Your task to perform on an android device: empty trash in google photos Image 0: 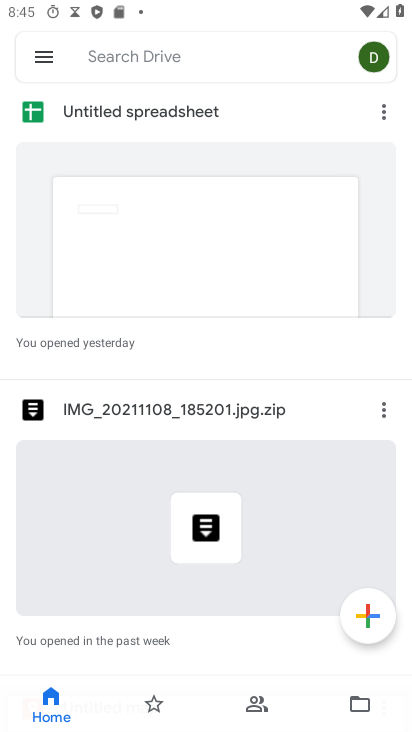
Step 0: press home button
Your task to perform on an android device: empty trash in google photos Image 1: 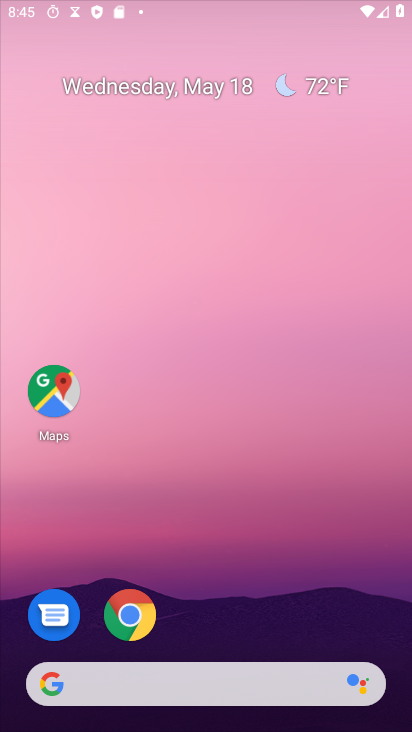
Step 1: drag from (294, 446) to (319, 74)
Your task to perform on an android device: empty trash in google photos Image 2: 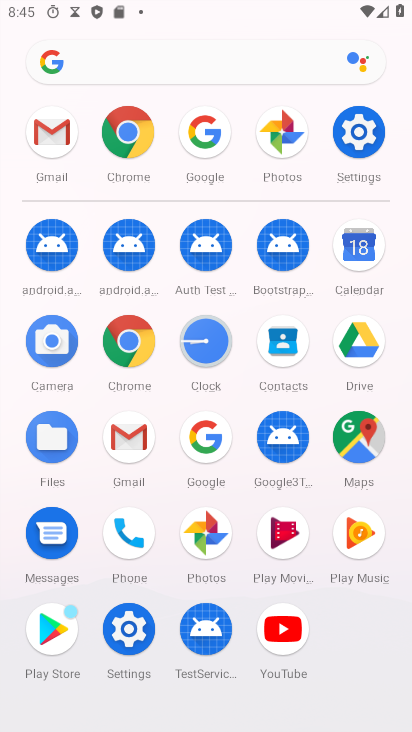
Step 2: click (201, 539)
Your task to perform on an android device: empty trash in google photos Image 3: 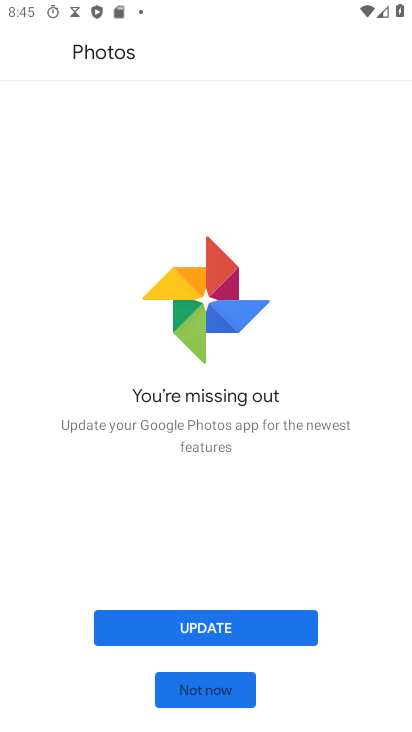
Step 3: click (252, 624)
Your task to perform on an android device: empty trash in google photos Image 4: 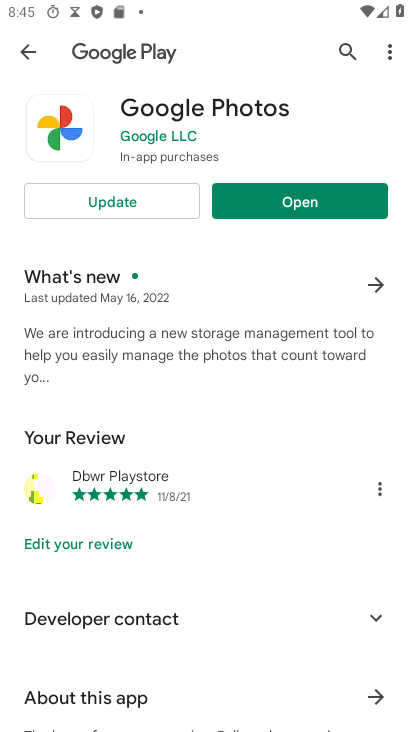
Step 4: click (157, 201)
Your task to perform on an android device: empty trash in google photos Image 5: 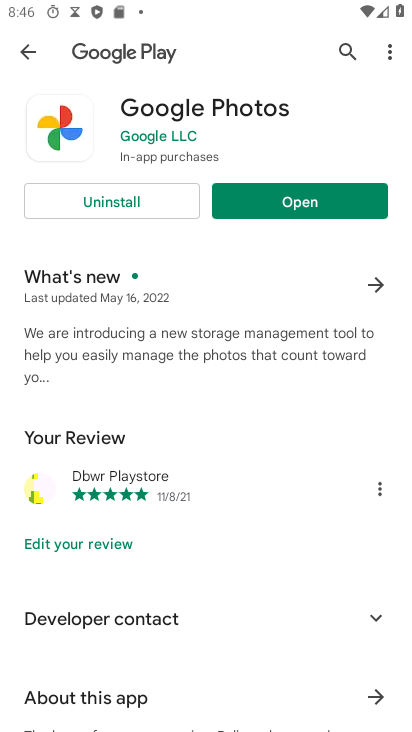
Step 5: click (287, 196)
Your task to perform on an android device: empty trash in google photos Image 6: 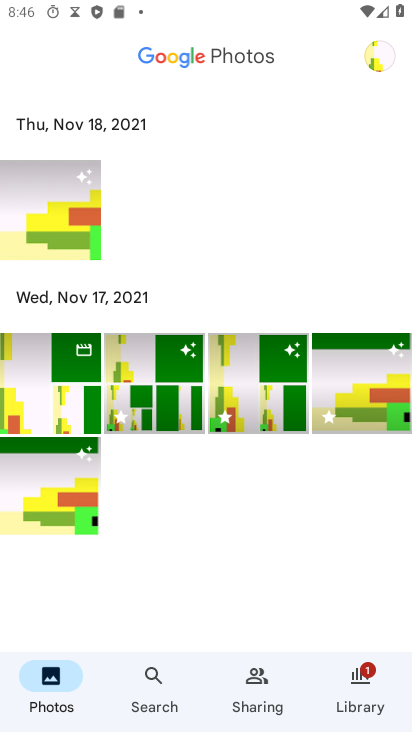
Step 6: click (354, 691)
Your task to perform on an android device: empty trash in google photos Image 7: 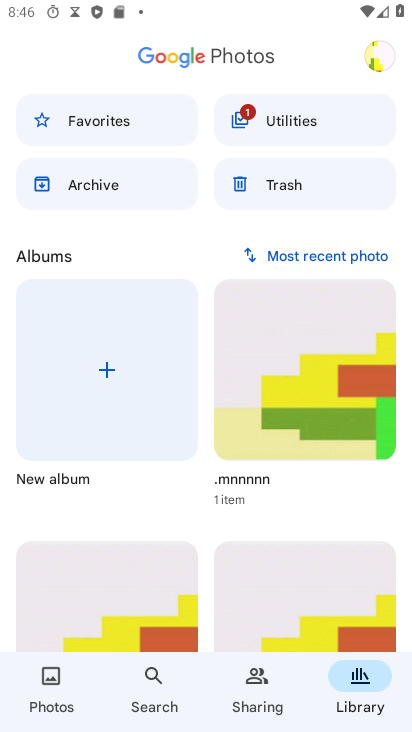
Step 7: click (323, 182)
Your task to perform on an android device: empty trash in google photos Image 8: 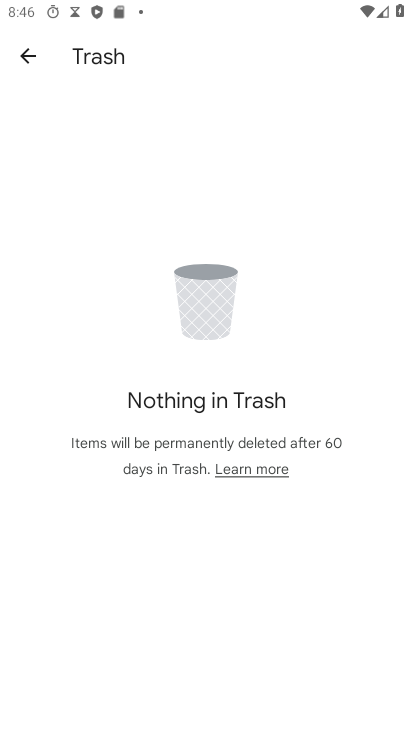
Step 8: task complete